Your task to perform on an android device: open wifi settings Image 0: 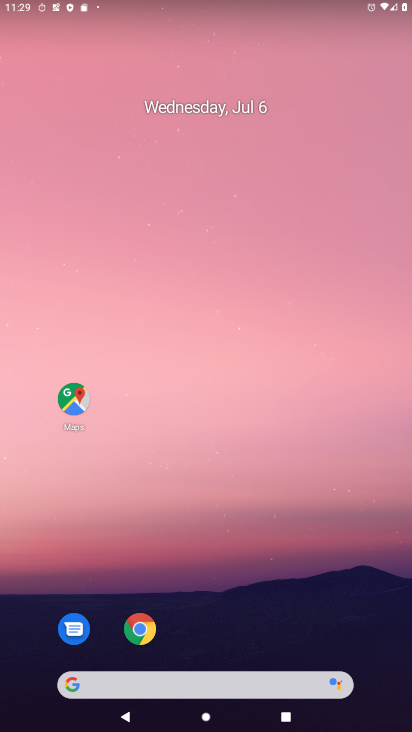
Step 0: click (274, 94)
Your task to perform on an android device: open wifi settings Image 1: 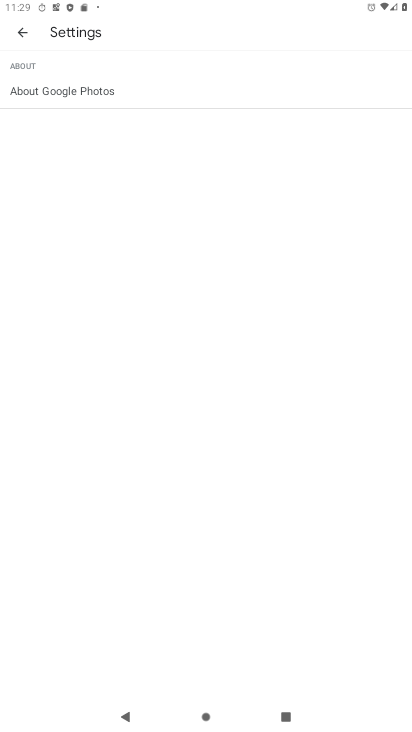
Step 1: press home button
Your task to perform on an android device: open wifi settings Image 2: 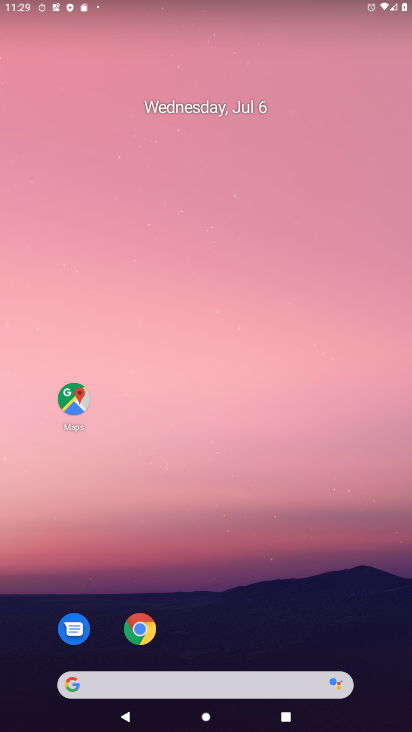
Step 2: drag from (224, 631) to (218, 54)
Your task to perform on an android device: open wifi settings Image 3: 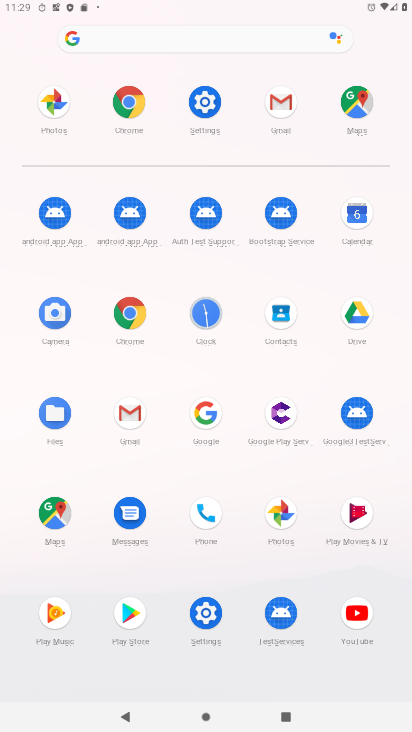
Step 3: click (208, 100)
Your task to perform on an android device: open wifi settings Image 4: 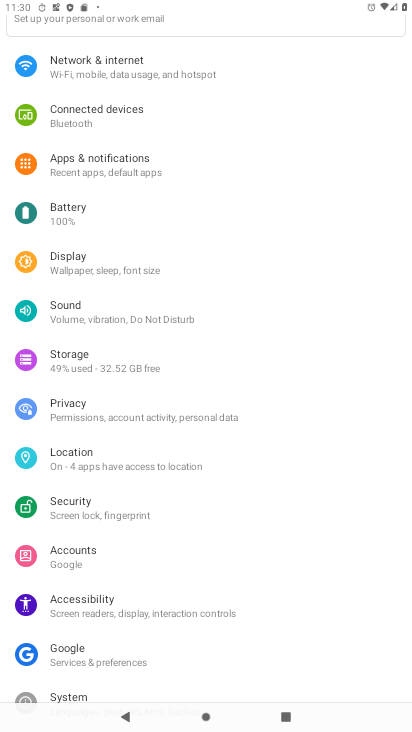
Step 4: drag from (135, 89) to (168, 351)
Your task to perform on an android device: open wifi settings Image 5: 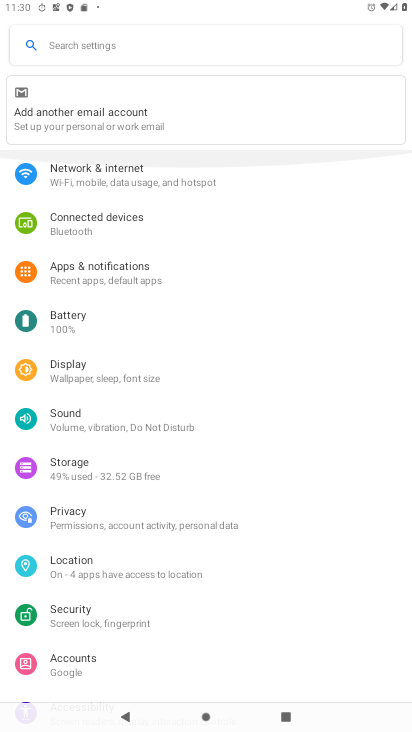
Step 5: click (127, 174)
Your task to perform on an android device: open wifi settings Image 6: 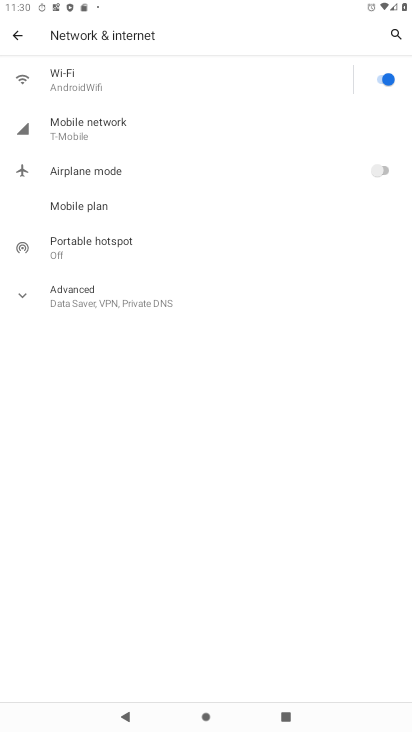
Step 6: click (96, 87)
Your task to perform on an android device: open wifi settings Image 7: 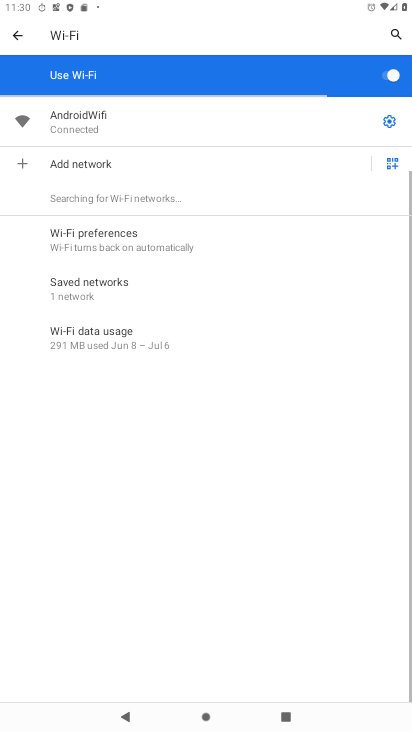
Step 7: click (385, 122)
Your task to perform on an android device: open wifi settings Image 8: 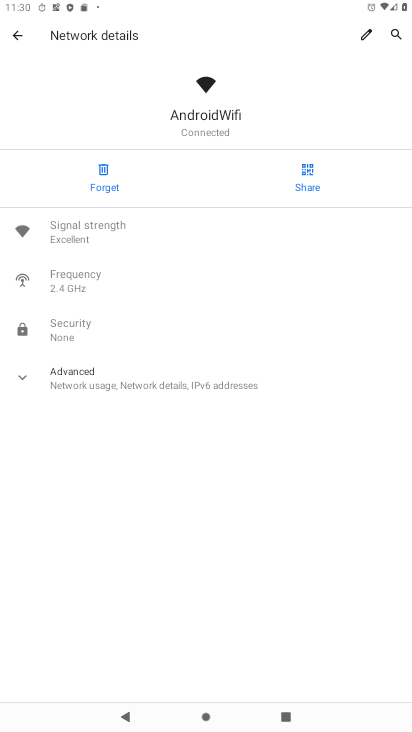
Step 8: task complete